Your task to perform on an android device: toggle improve location accuracy Image 0: 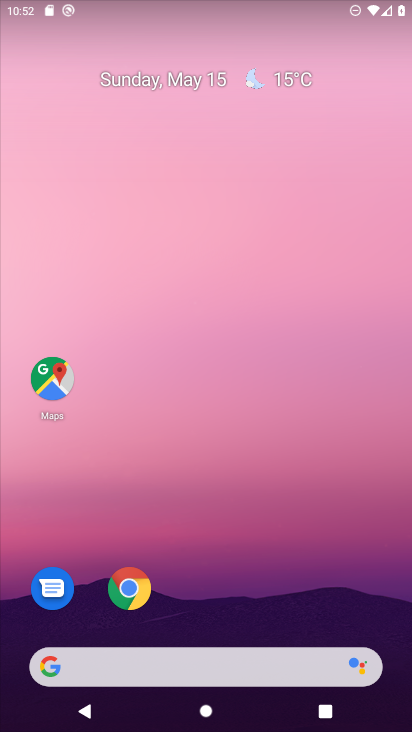
Step 0: drag from (203, 606) to (250, 117)
Your task to perform on an android device: toggle improve location accuracy Image 1: 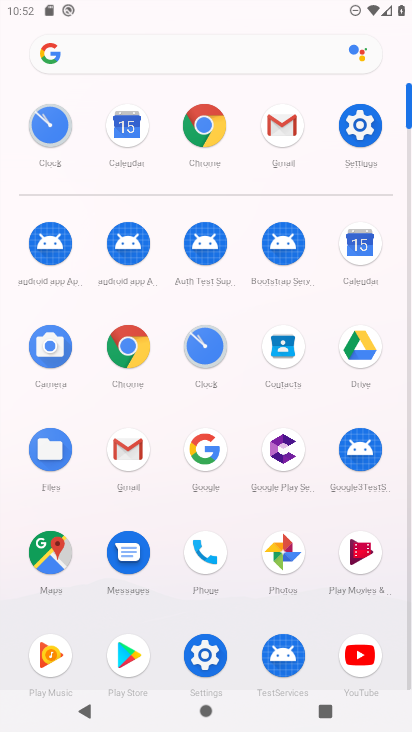
Step 1: click (368, 131)
Your task to perform on an android device: toggle improve location accuracy Image 2: 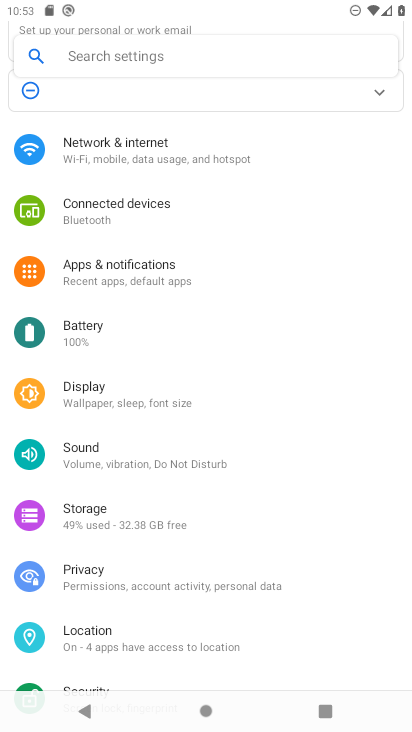
Step 2: click (92, 645)
Your task to perform on an android device: toggle improve location accuracy Image 3: 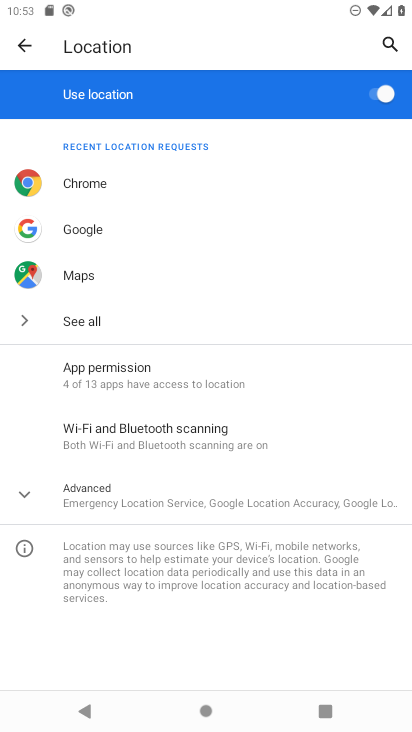
Step 3: click (88, 511)
Your task to perform on an android device: toggle improve location accuracy Image 4: 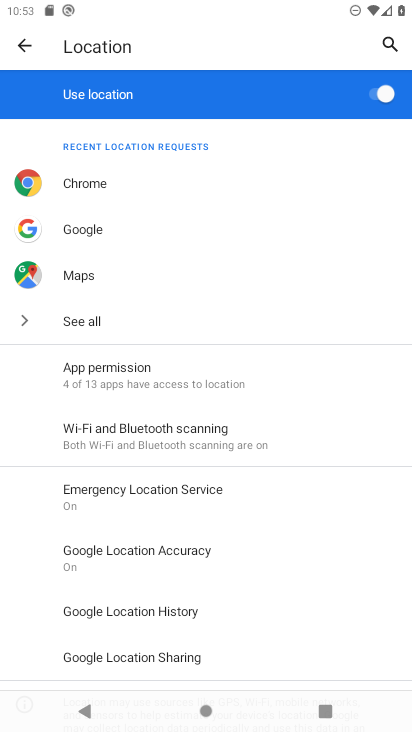
Step 4: click (178, 554)
Your task to perform on an android device: toggle improve location accuracy Image 5: 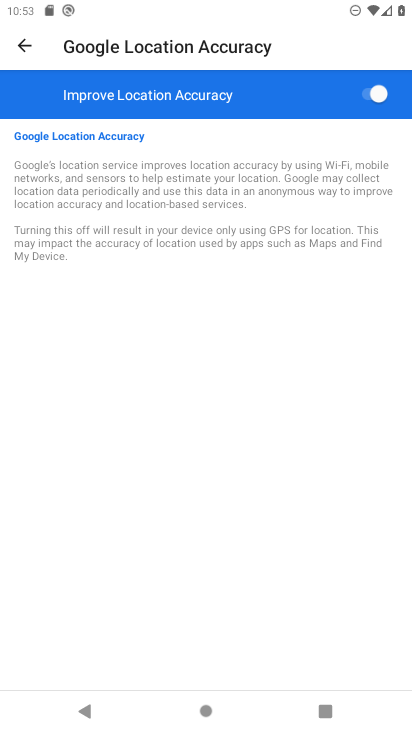
Step 5: click (350, 90)
Your task to perform on an android device: toggle improve location accuracy Image 6: 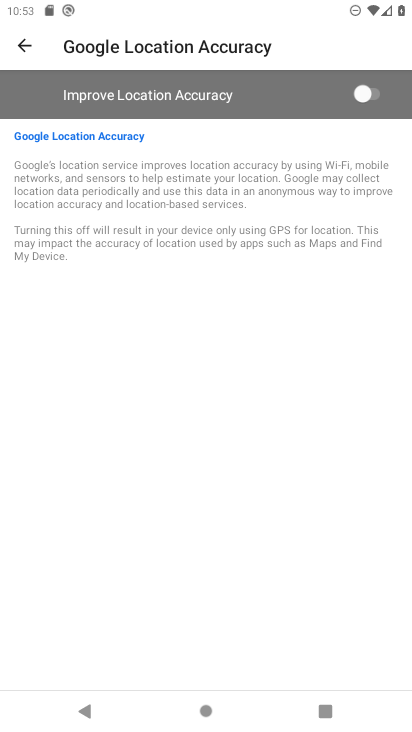
Step 6: task complete